Your task to perform on an android device: Go to Amazon Image 0: 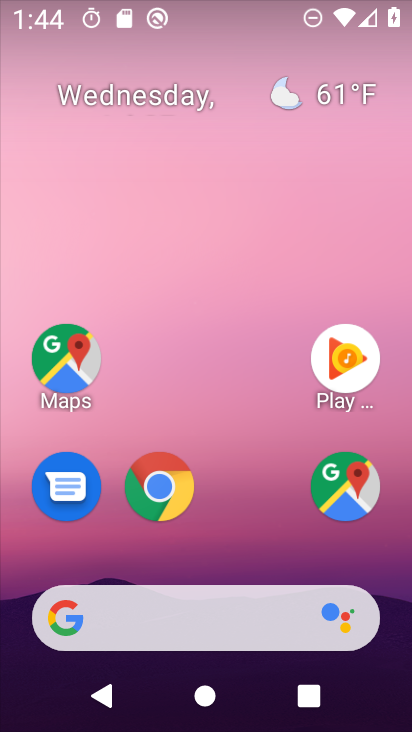
Step 0: press home button
Your task to perform on an android device: Go to Amazon Image 1: 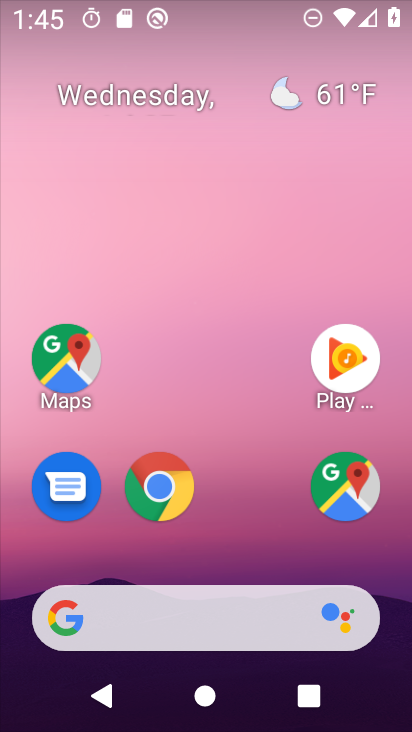
Step 1: drag from (263, 549) to (265, 140)
Your task to perform on an android device: Go to Amazon Image 2: 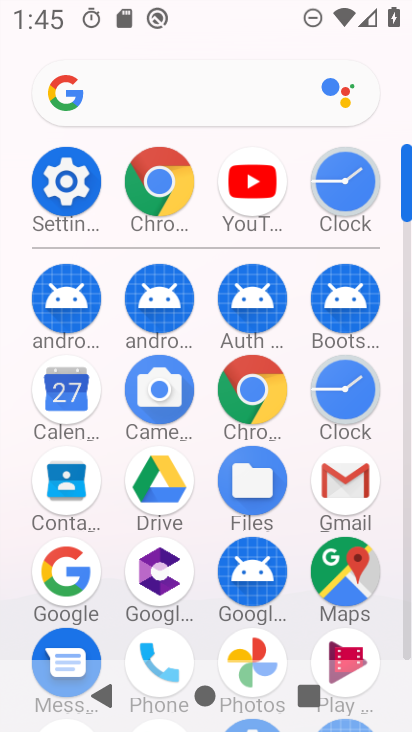
Step 2: click (246, 394)
Your task to perform on an android device: Go to Amazon Image 3: 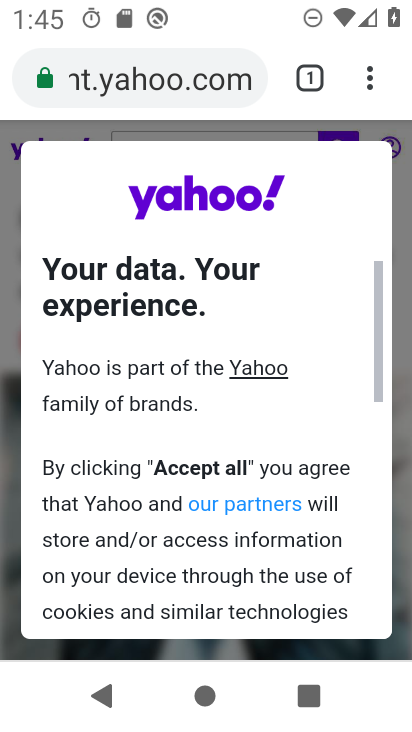
Step 3: click (197, 78)
Your task to perform on an android device: Go to Amazon Image 4: 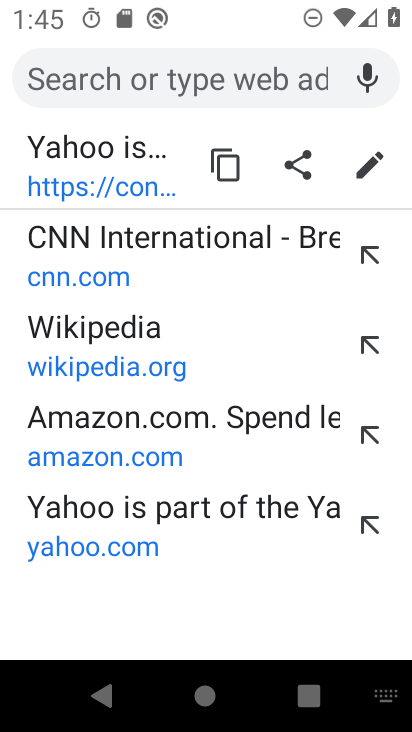
Step 4: type "amazon"
Your task to perform on an android device: Go to Amazon Image 5: 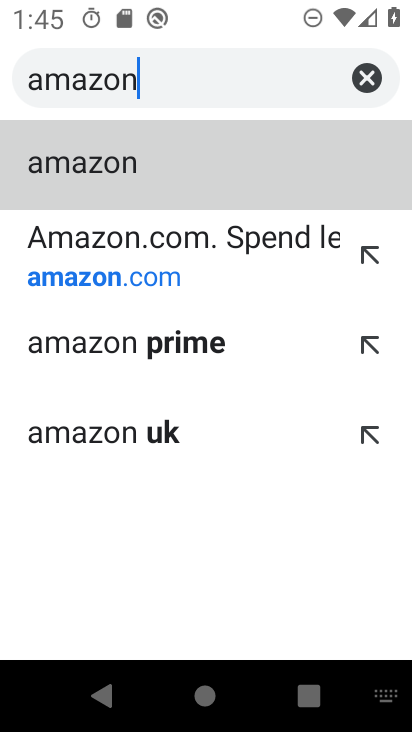
Step 5: click (321, 160)
Your task to perform on an android device: Go to Amazon Image 6: 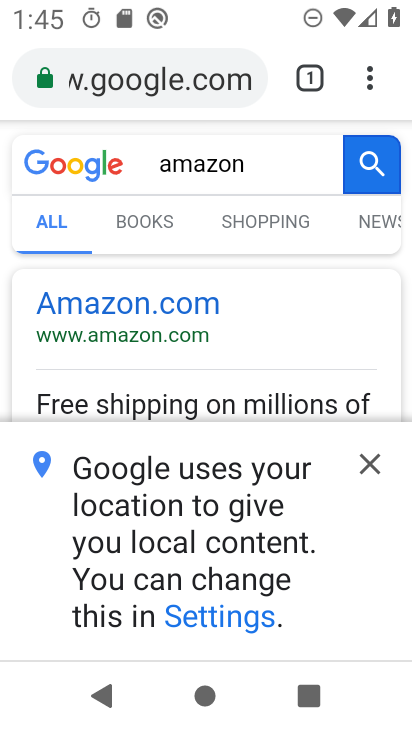
Step 6: task complete